Your task to perform on an android device: check out phone information Image 0: 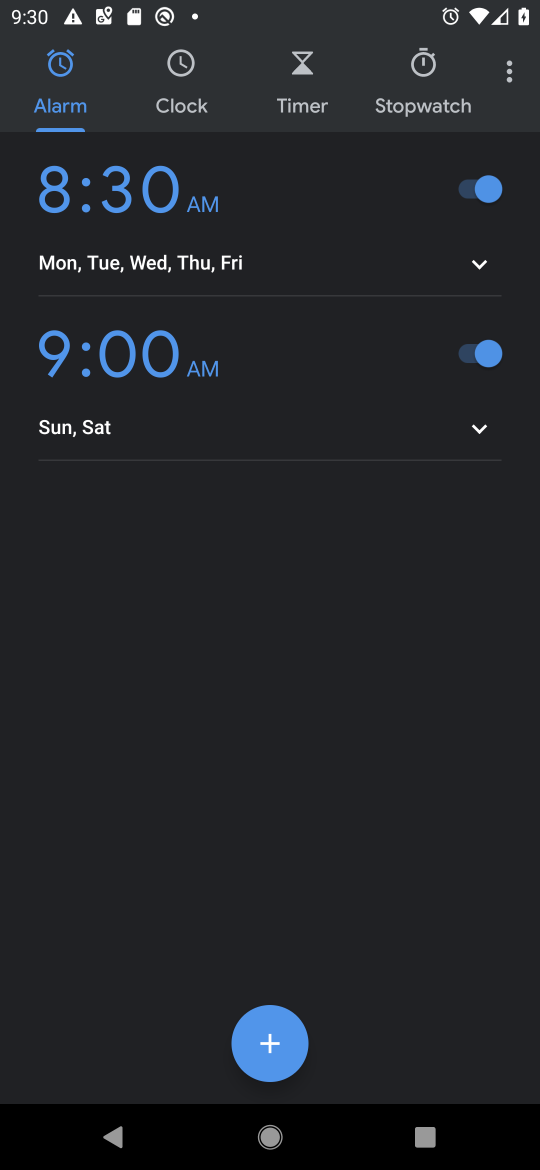
Step 0: drag from (368, 681) to (364, 555)
Your task to perform on an android device: check out phone information Image 1: 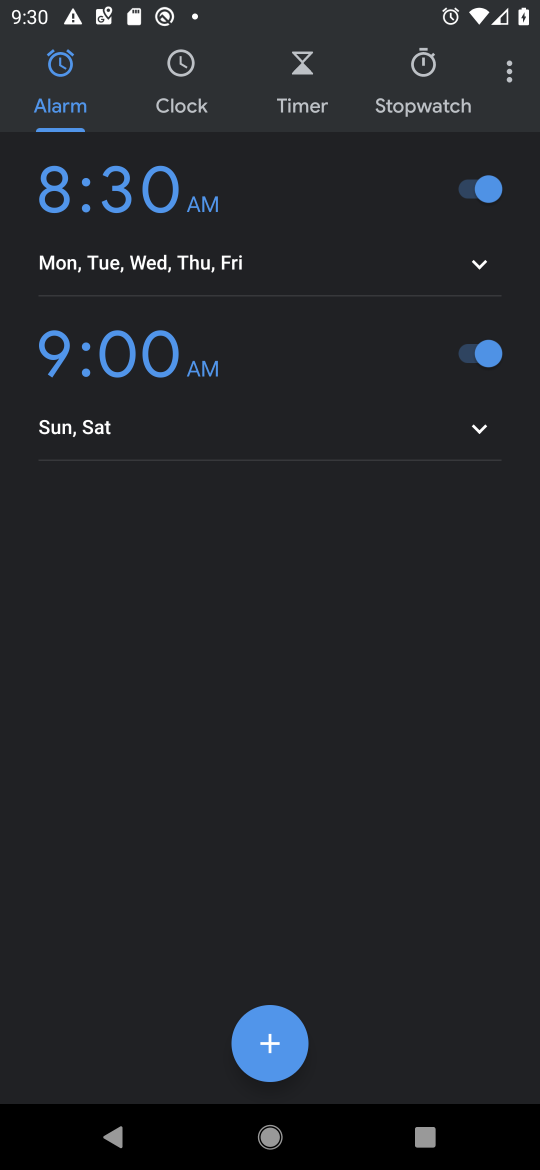
Step 1: press home button
Your task to perform on an android device: check out phone information Image 2: 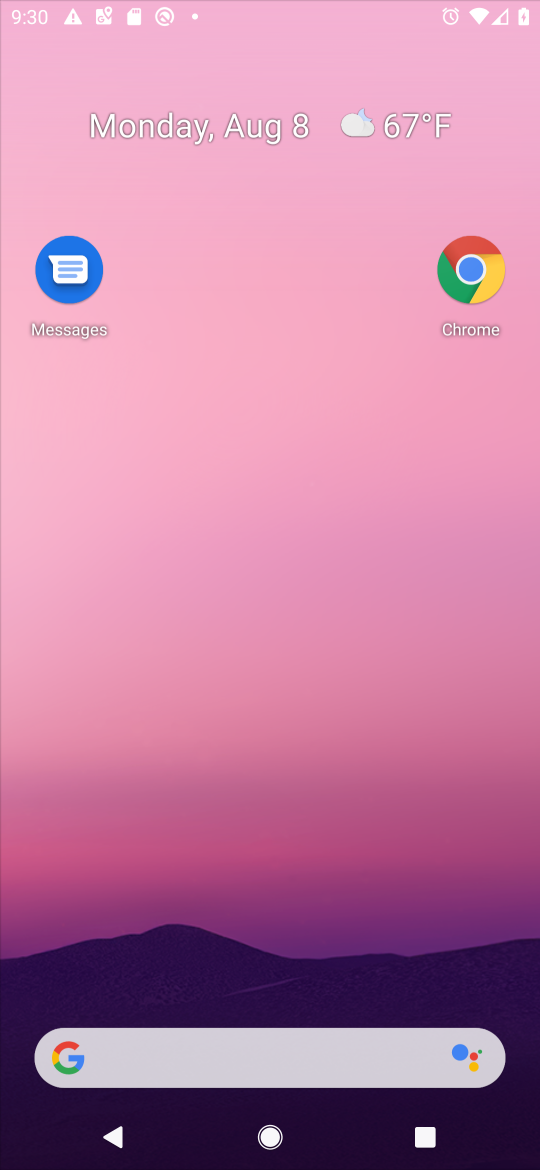
Step 2: drag from (261, 491) to (254, 353)
Your task to perform on an android device: check out phone information Image 3: 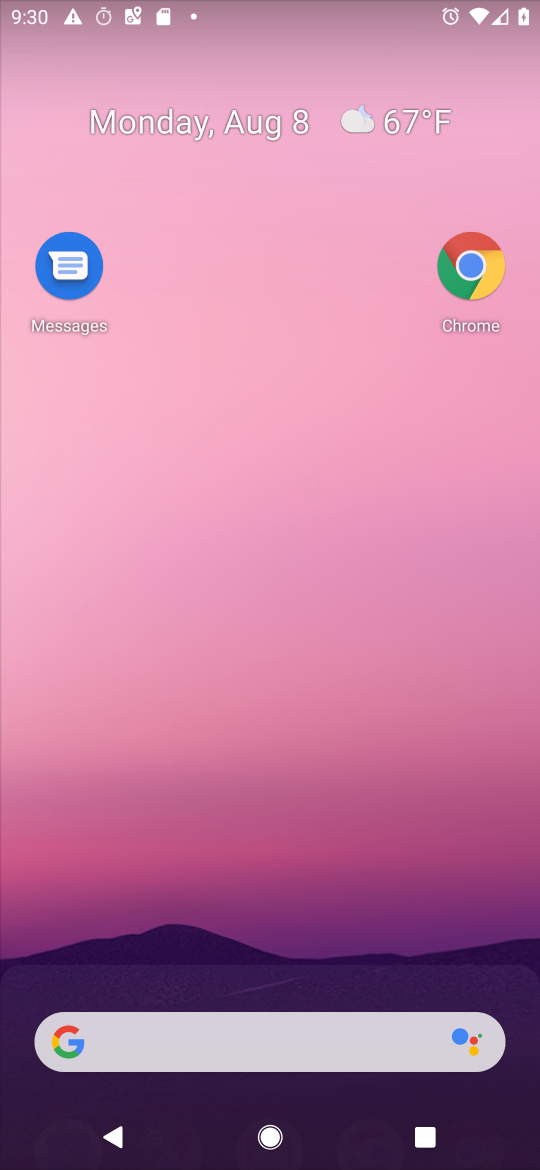
Step 3: drag from (275, 1056) to (355, 381)
Your task to perform on an android device: check out phone information Image 4: 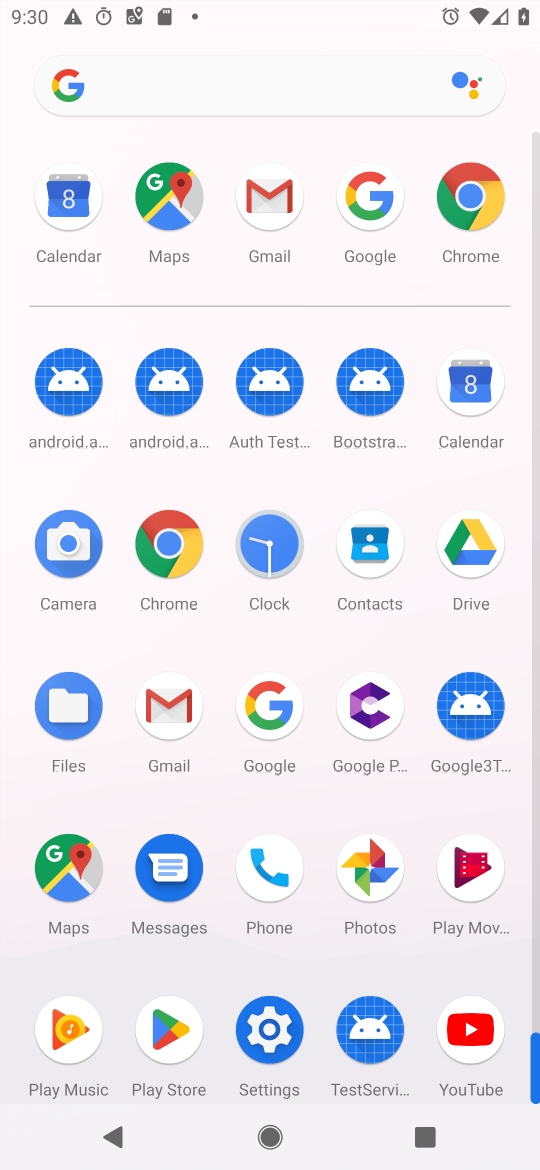
Step 4: click (255, 1026)
Your task to perform on an android device: check out phone information Image 5: 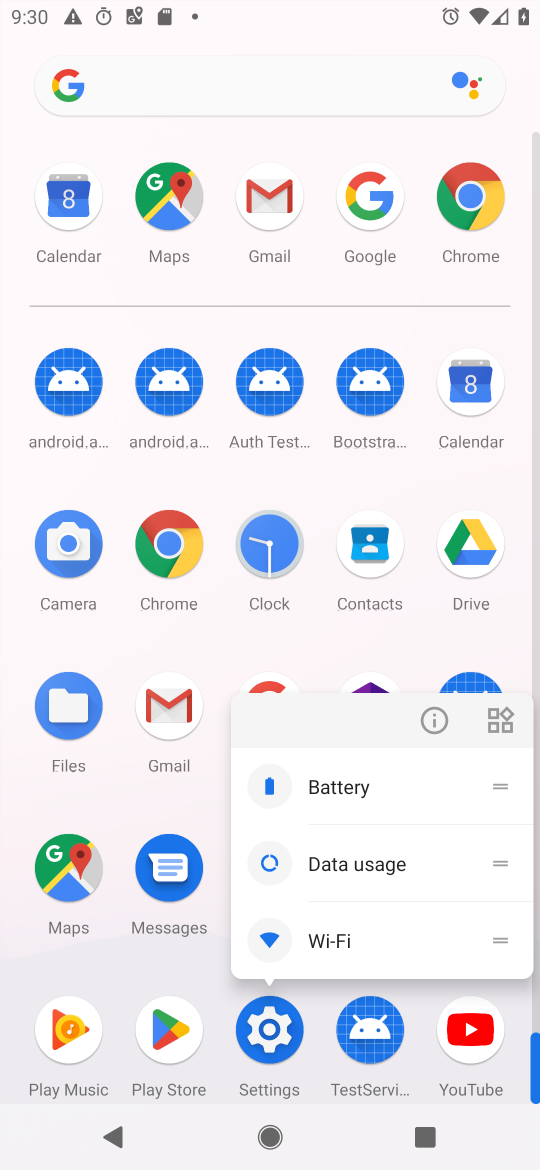
Step 5: click (431, 736)
Your task to perform on an android device: check out phone information Image 6: 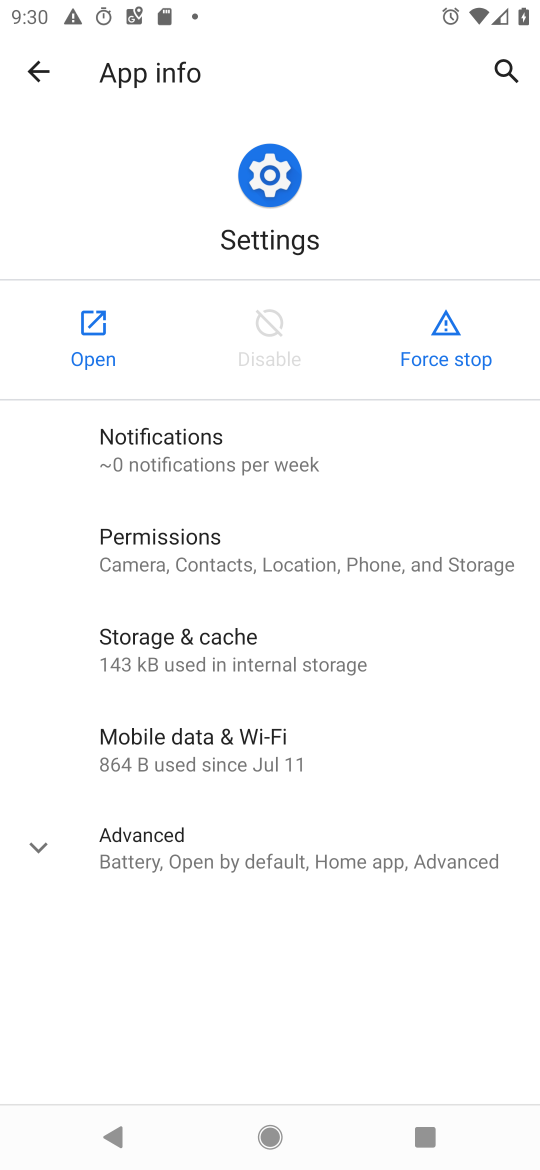
Step 6: click (97, 358)
Your task to perform on an android device: check out phone information Image 7: 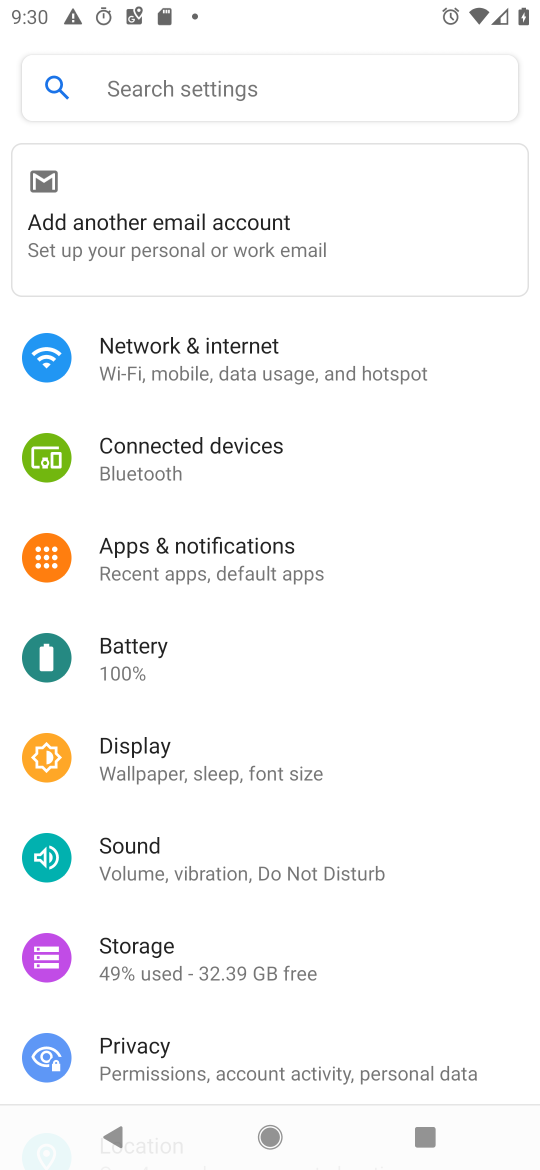
Step 7: drag from (171, 885) to (213, 143)
Your task to perform on an android device: check out phone information Image 8: 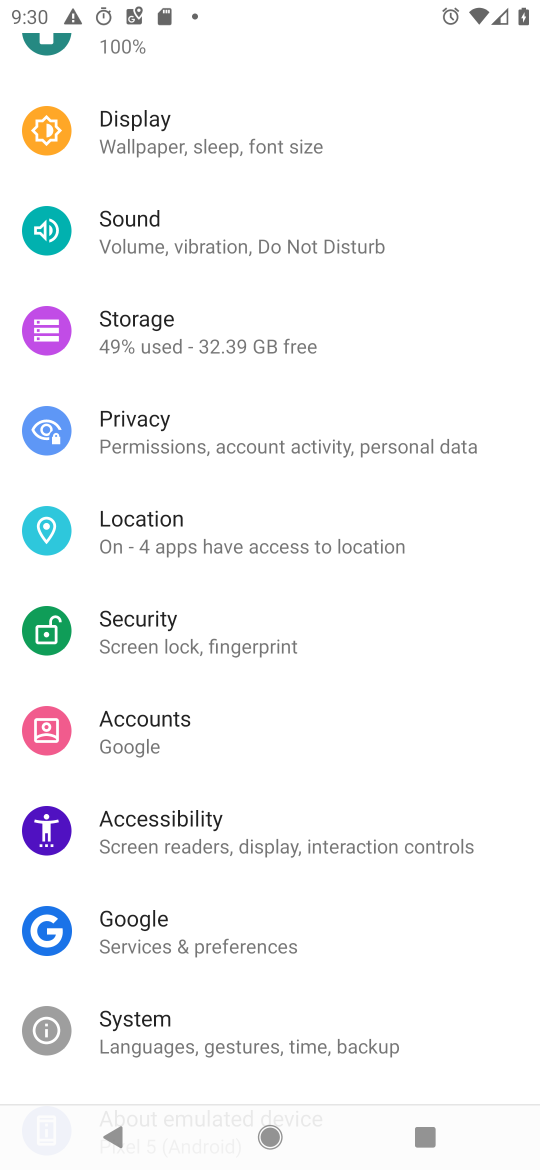
Step 8: drag from (147, 908) to (168, 225)
Your task to perform on an android device: check out phone information Image 9: 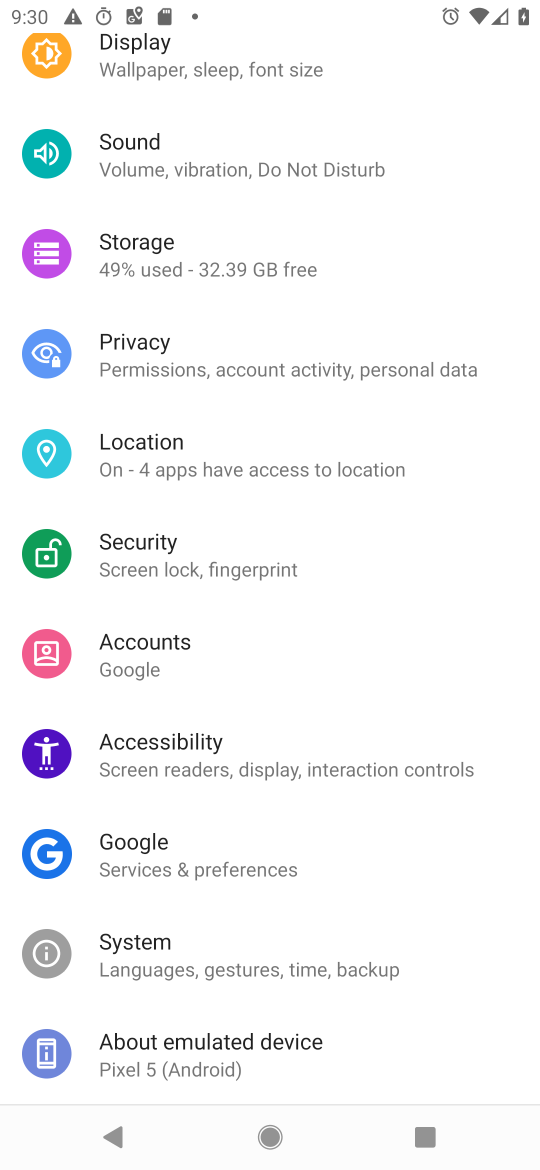
Step 9: drag from (200, 952) to (319, 239)
Your task to perform on an android device: check out phone information Image 10: 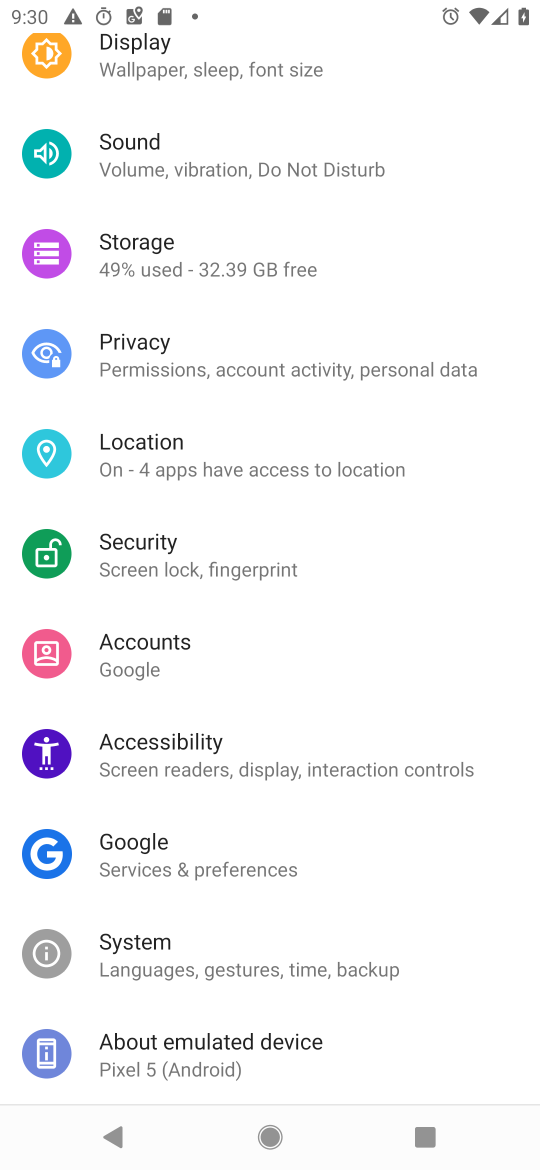
Step 10: drag from (217, 835) to (290, 277)
Your task to perform on an android device: check out phone information Image 11: 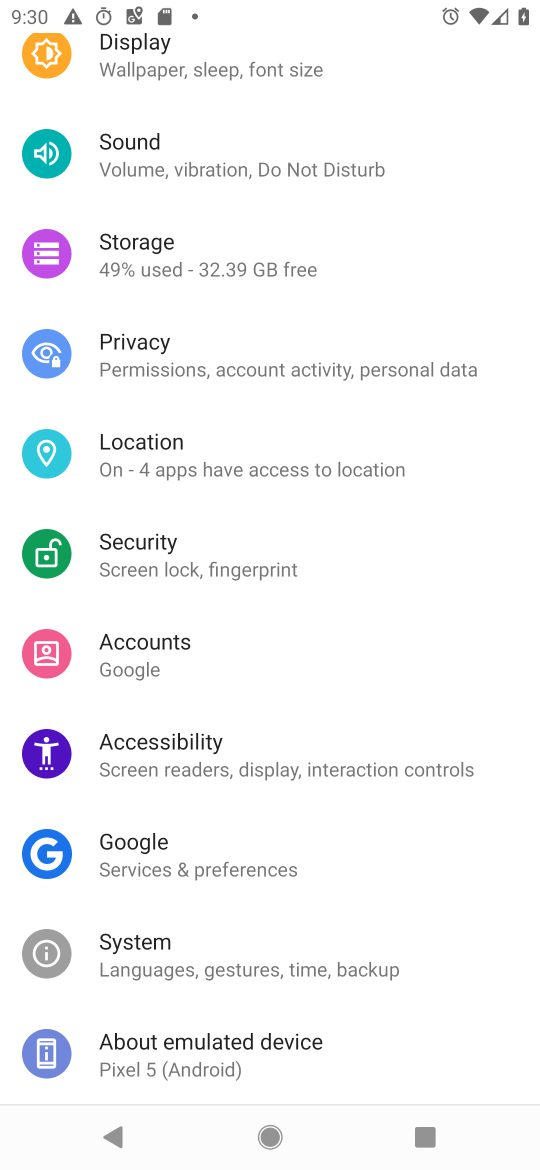
Step 11: click (187, 1048)
Your task to perform on an android device: check out phone information Image 12: 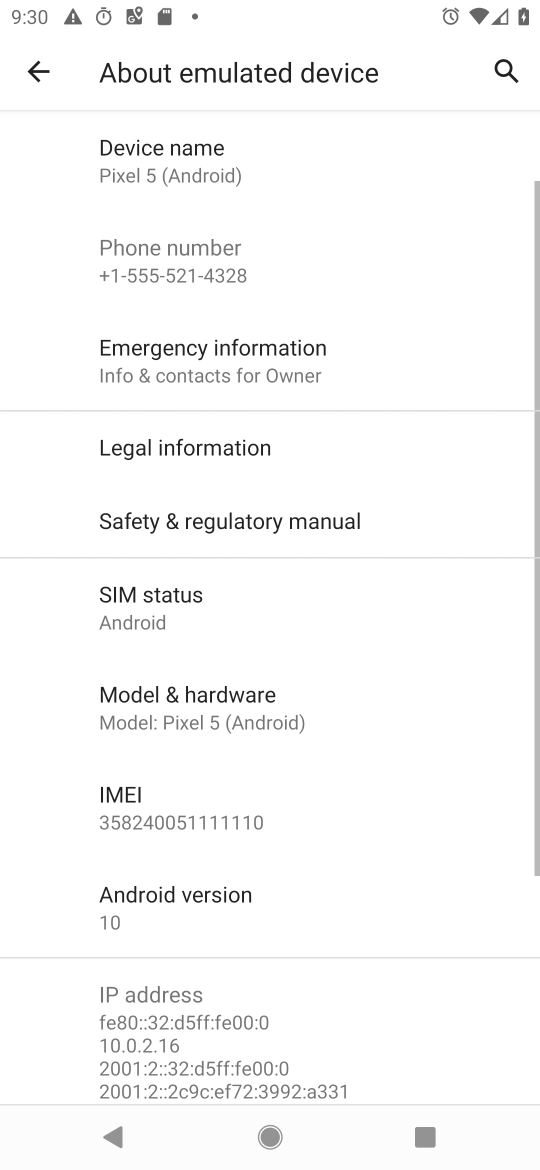
Step 12: task complete